Your task to perform on an android device: open a bookmark in the chrome app Image 0: 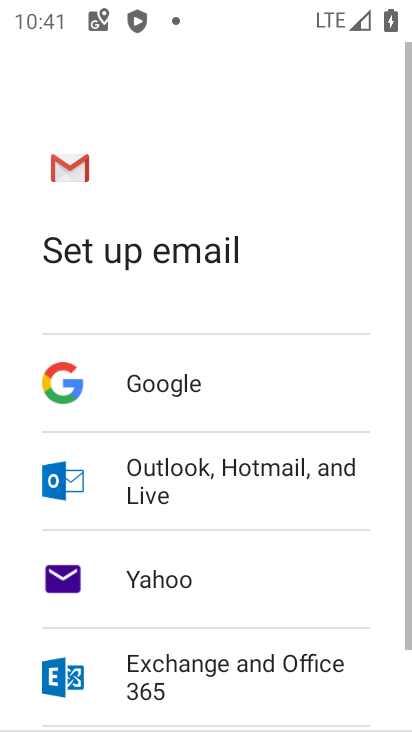
Step 0: press home button
Your task to perform on an android device: open a bookmark in the chrome app Image 1: 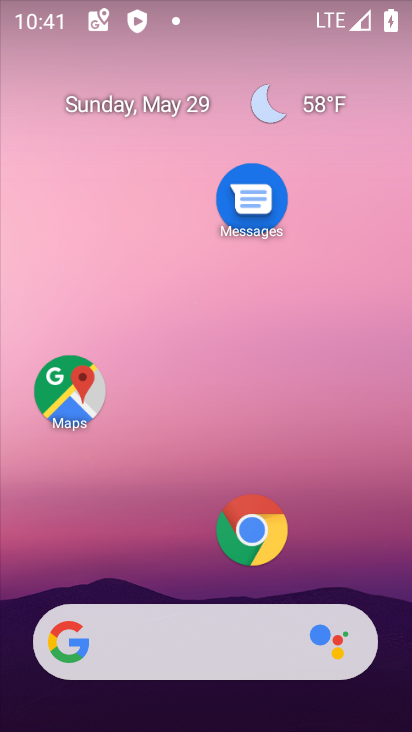
Step 1: click (274, 535)
Your task to perform on an android device: open a bookmark in the chrome app Image 2: 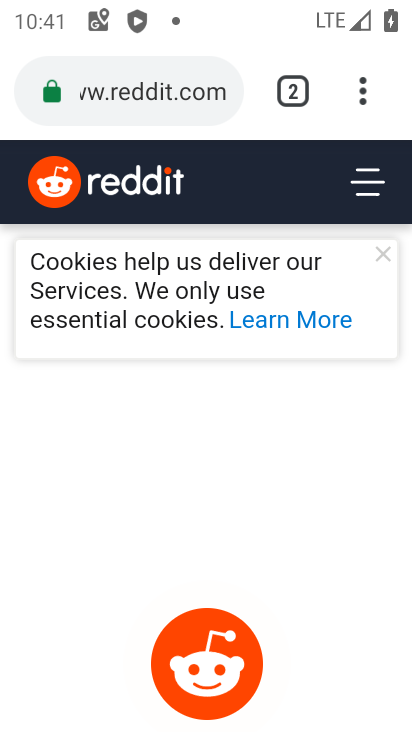
Step 2: click (365, 96)
Your task to perform on an android device: open a bookmark in the chrome app Image 3: 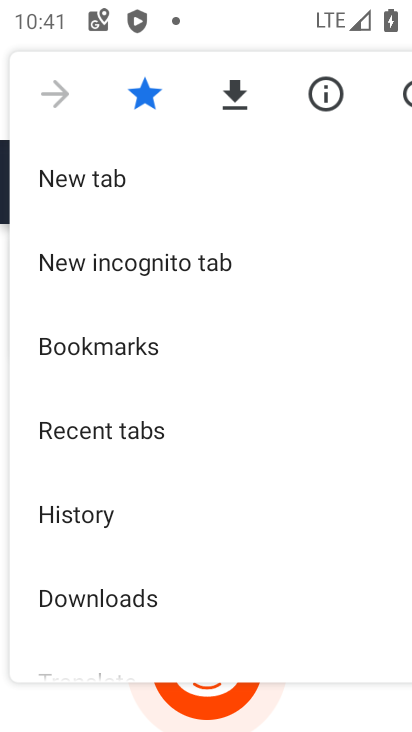
Step 3: click (117, 348)
Your task to perform on an android device: open a bookmark in the chrome app Image 4: 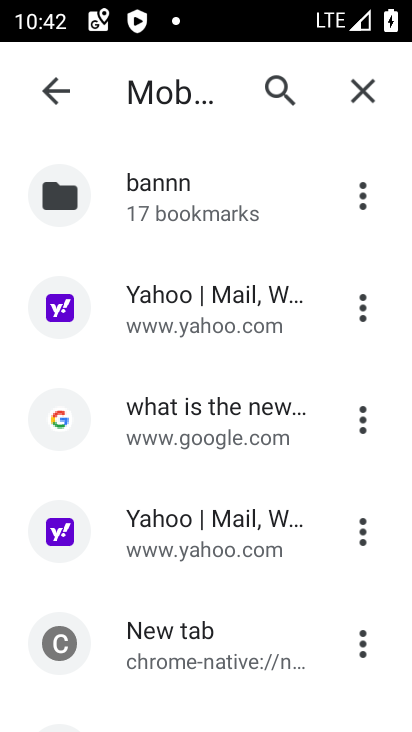
Step 4: drag from (206, 597) to (244, 222)
Your task to perform on an android device: open a bookmark in the chrome app Image 5: 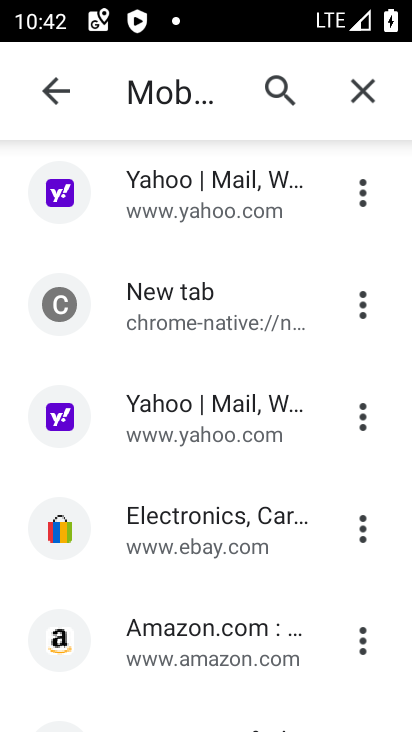
Step 5: click (194, 624)
Your task to perform on an android device: open a bookmark in the chrome app Image 6: 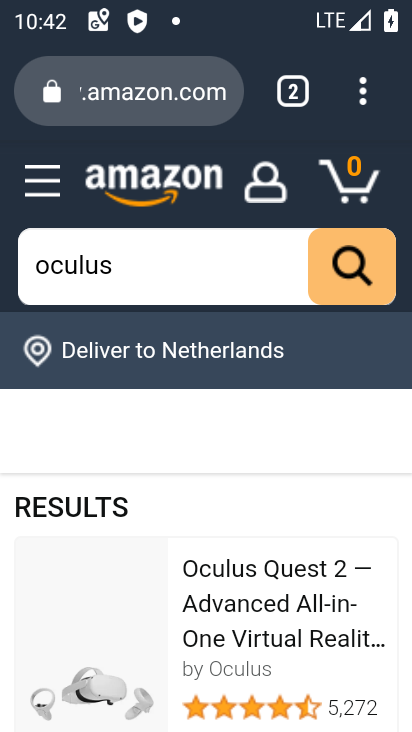
Step 6: task complete